Your task to perform on an android device: check data usage Image 0: 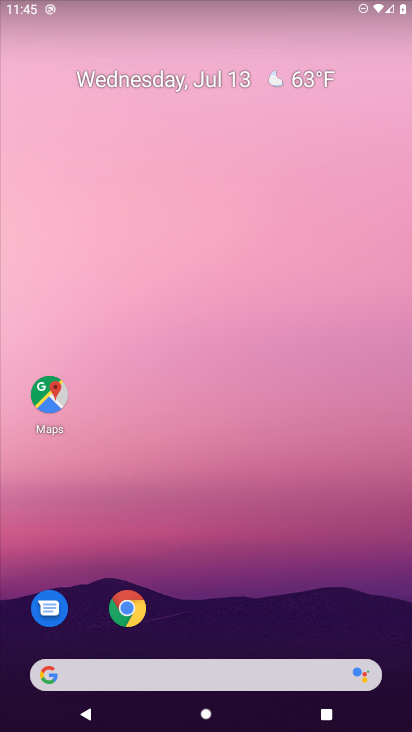
Step 0: press home button
Your task to perform on an android device: check data usage Image 1: 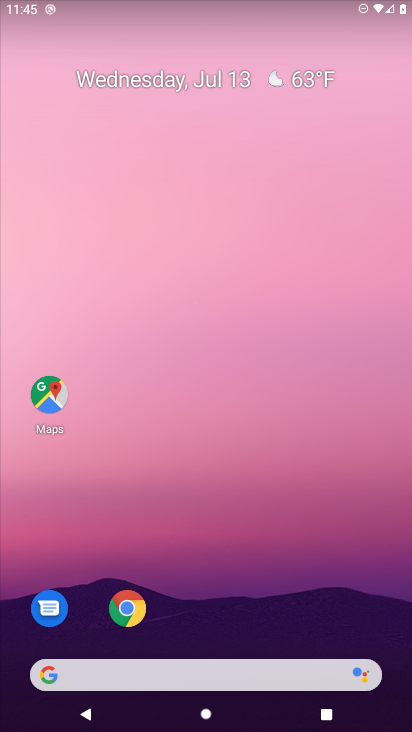
Step 1: drag from (223, 637) to (187, 212)
Your task to perform on an android device: check data usage Image 2: 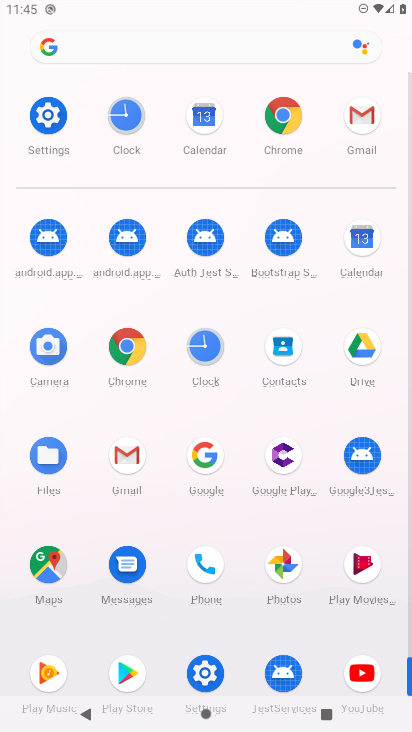
Step 2: click (46, 115)
Your task to perform on an android device: check data usage Image 3: 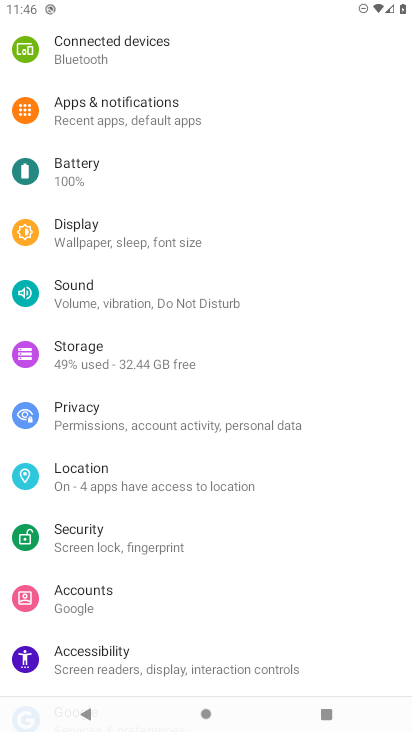
Step 3: drag from (314, 53) to (302, 544)
Your task to perform on an android device: check data usage Image 4: 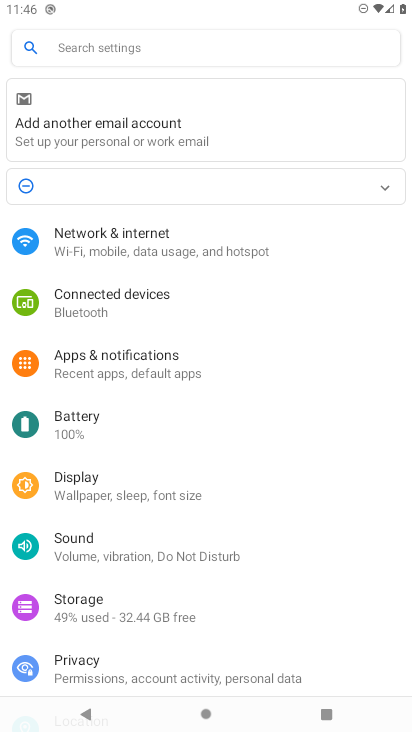
Step 4: click (112, 246)
Your task to perform on an android device: check data usage Image 5: 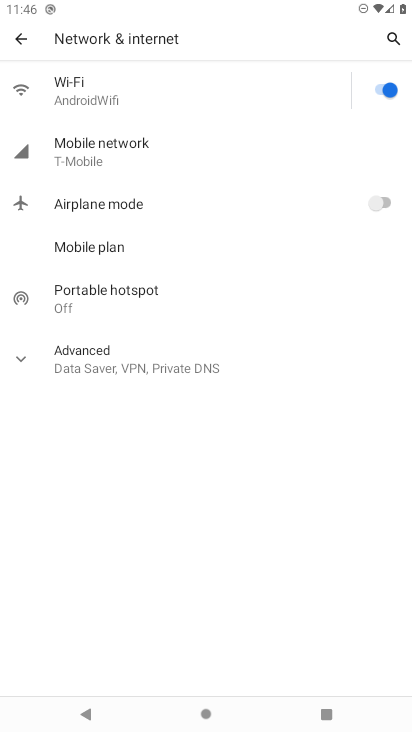
Step 5: click (99, 144)
Your task to perform on an android device: check data usage Image 6: 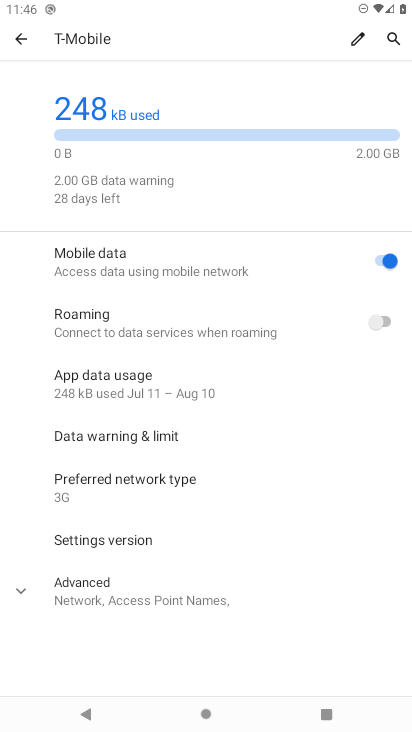
Step 6: click (118, 377)
Your task to perform on an android device: check data usage Image 7: 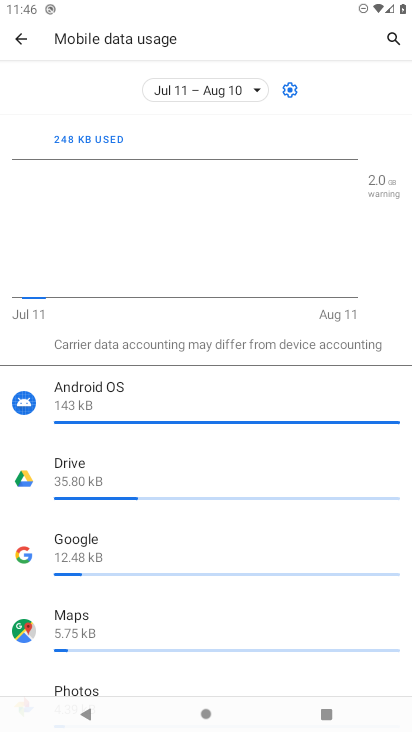
Step 7: task complete